Your task to perform on an android device: Search for "macbook air" on target.com, select the first entry, and add it to the cart. Image 0: 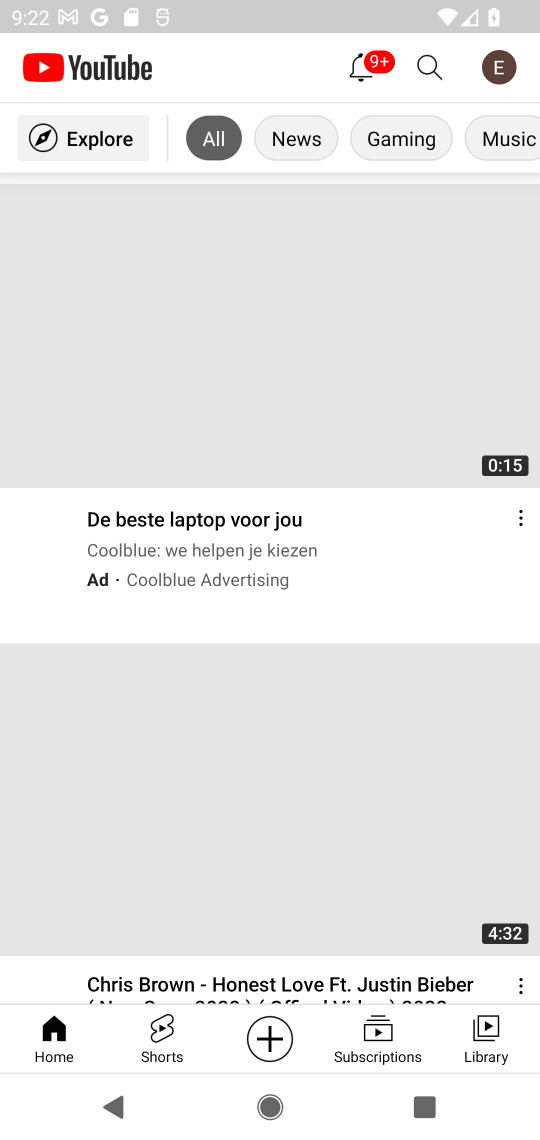
Step 0: press home button
Your task to perform on an android device: Search for "macbook air" on target.com, select the first entry, and add it to the cart. Image 1: 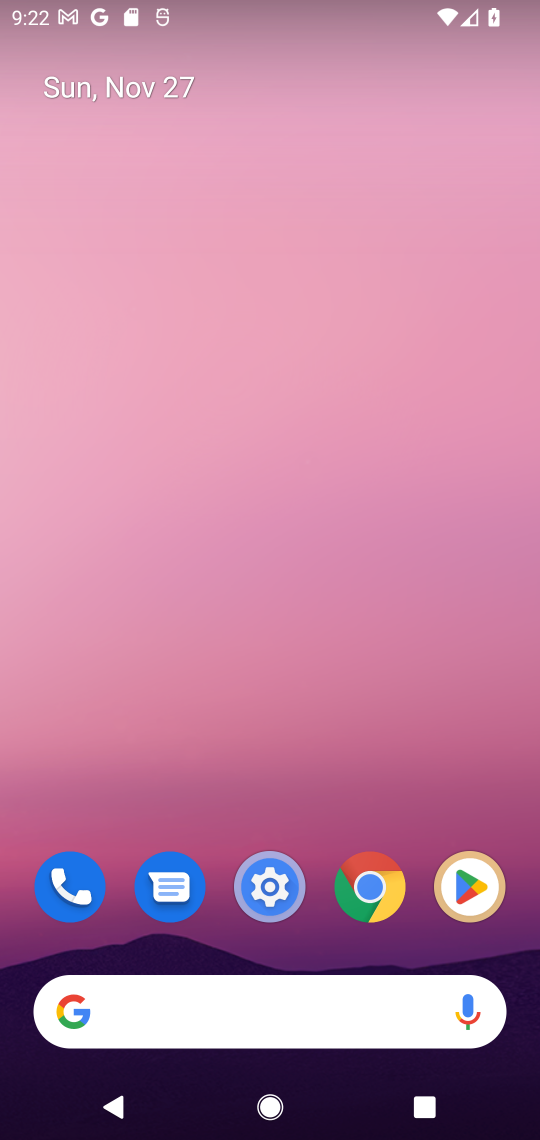
Step 1: click (372, 987)
Your task to perform on an android device: Search for "macbook air" on target.com, select the first entry, and add it to the cart. Image 2: 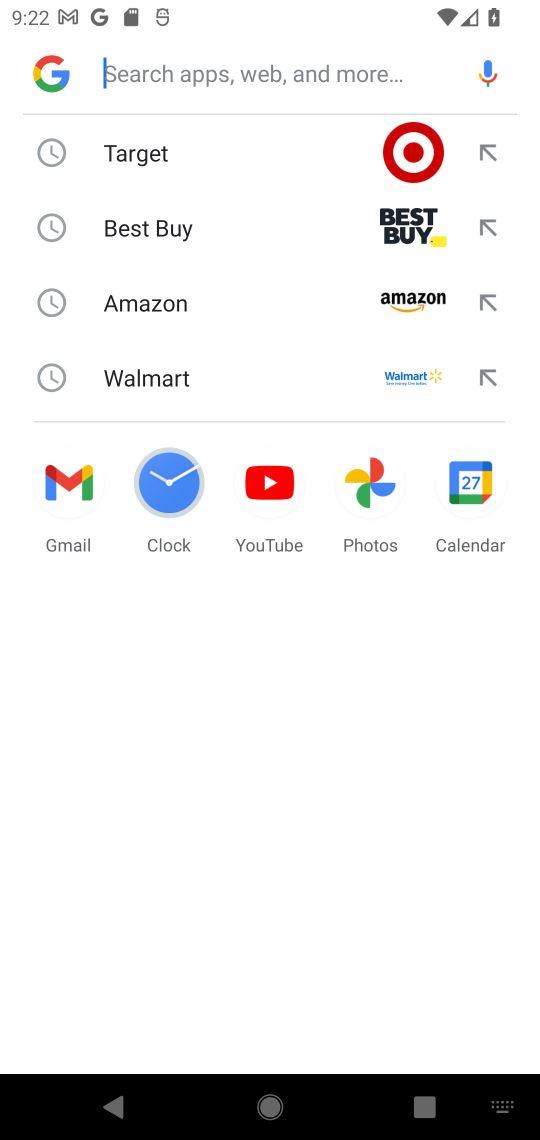
Step 2: click (152, 155)
Your task to perform on an android device: Search for "macbook air" on target.com, select the first entry, and add it to the cart. Image 3: 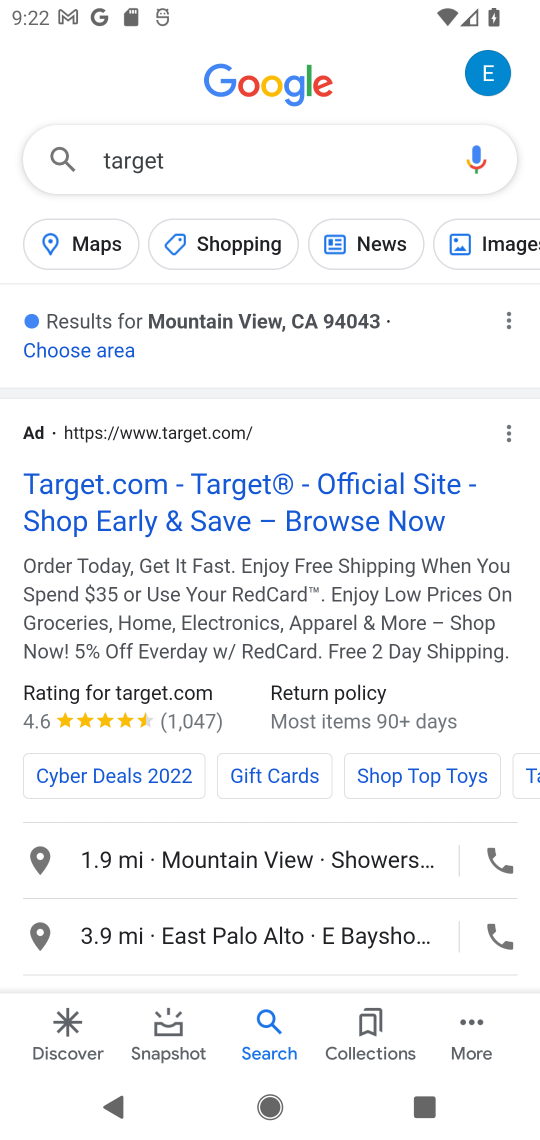
Step 3: click (289, 527)
Your task to perform on an android device: Search for "macbook air" on target.com, select the first entry, and add it to the cart. Image 4: 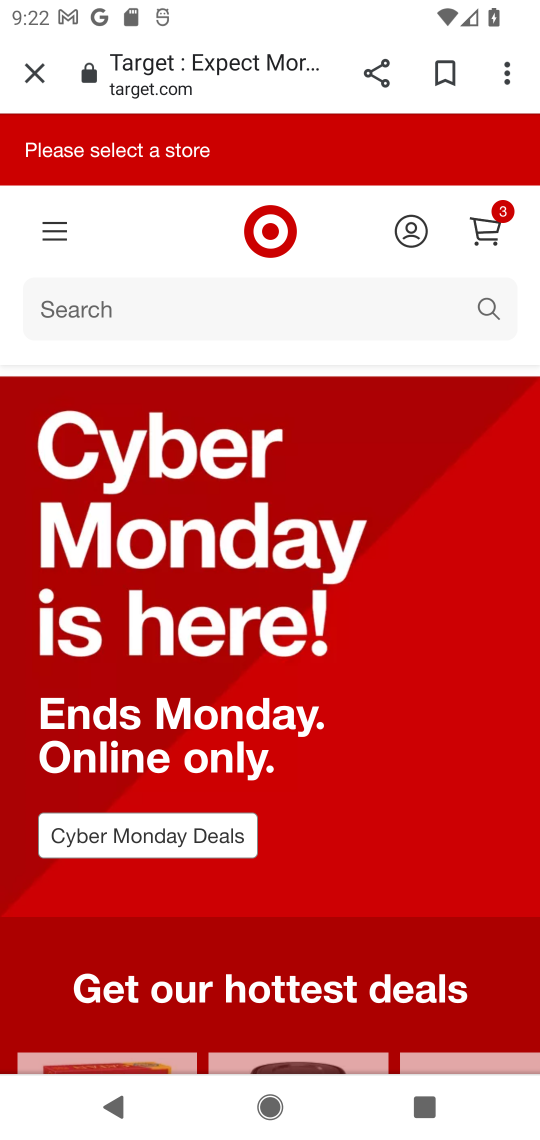
Step 4: click (239, 295)
Your task to perform on an android device: Search for "macbook air" on target.com, select the first entry, and add it to the cart. Image 5: 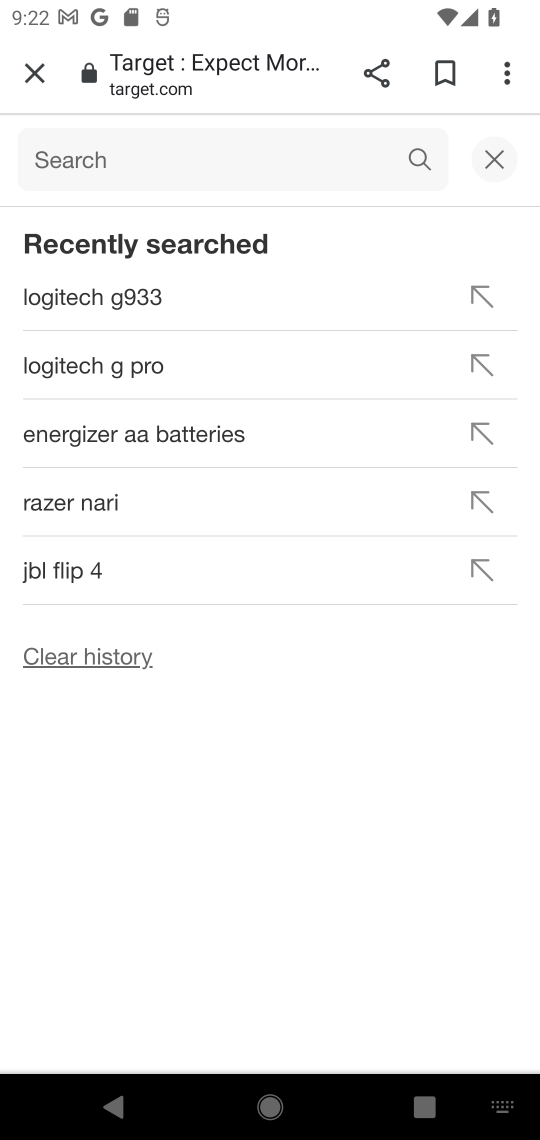
Step 5: type "macbook air"
Your task to perform on an android device: Search for "macbook air" on target.com, select the first entry, and add it to the cart. Image 6: 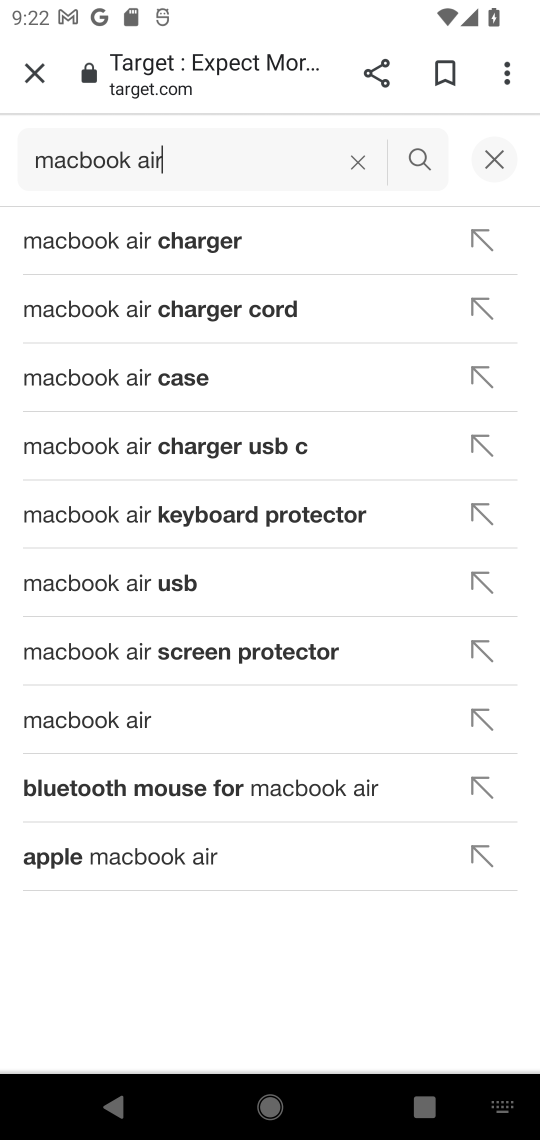
Step 6: click (405, 173)
Your task to perform on an android device: Search for "macbook air" on target.com, select the first entry, and add it to the cart. Image 7: 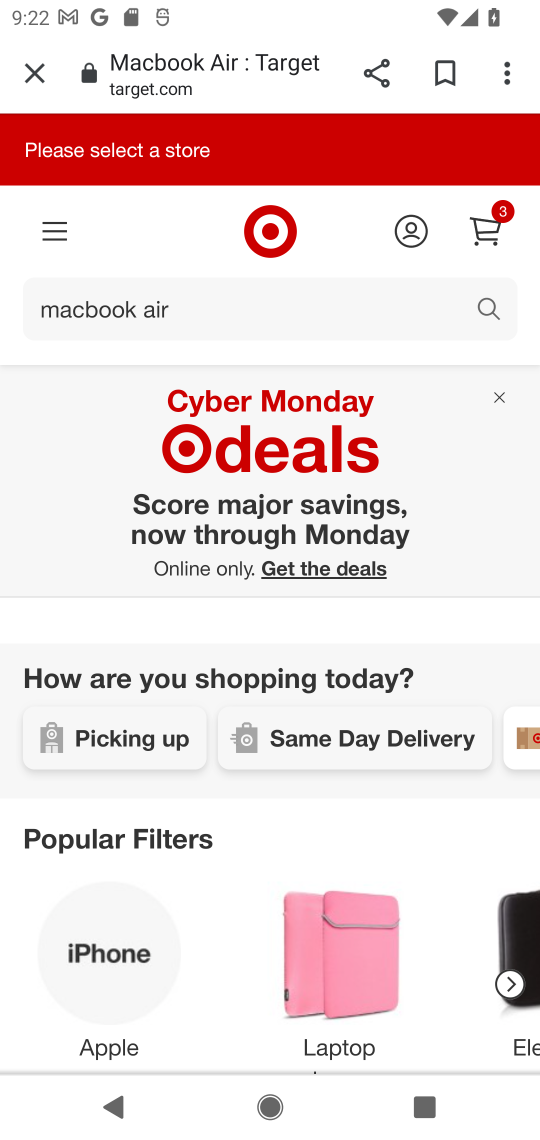
Step 7: click (492, 403)
Your task to perform on an android device: Search for "macbook air" on target.com, select the first entry, and add it to the cart. Image 8: 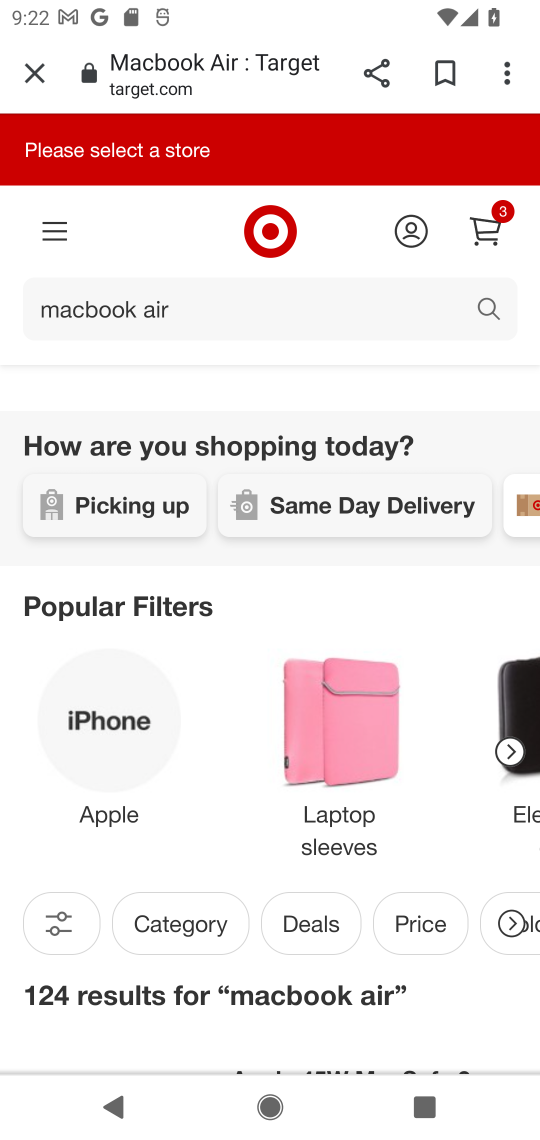
Step 8: drag from (258, 575) to (248, 357)
Your task to perform on an android device: Search for "macbook air" on target.com, select the first entry, and add it to the cart. Image 9: 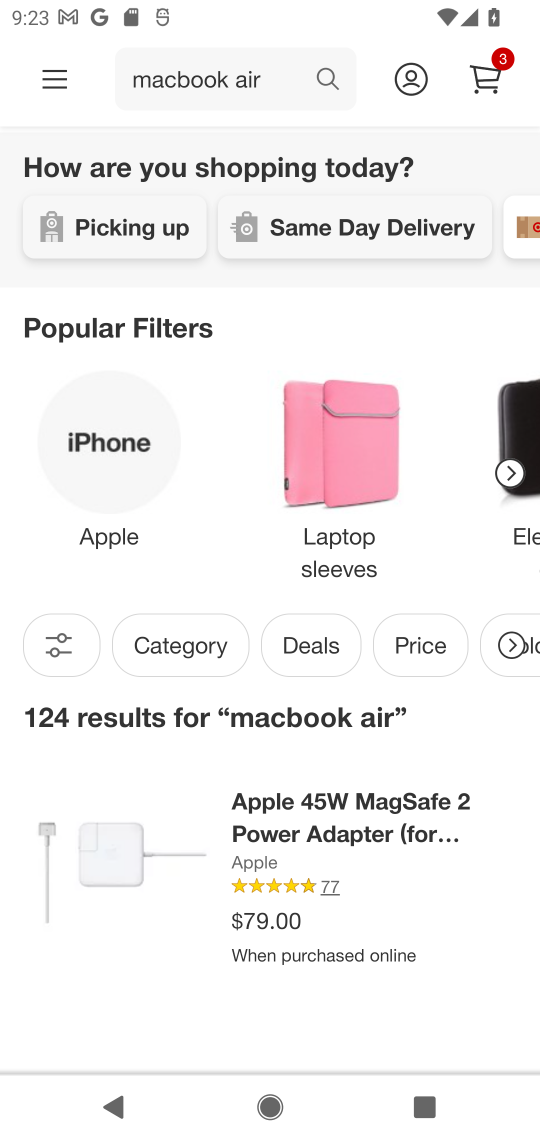
Step 9: click (430, 789)
Your task to perform on an android device: Search for "macbook air" on target.com, select the first entry, and add it to the cart. Image 10: 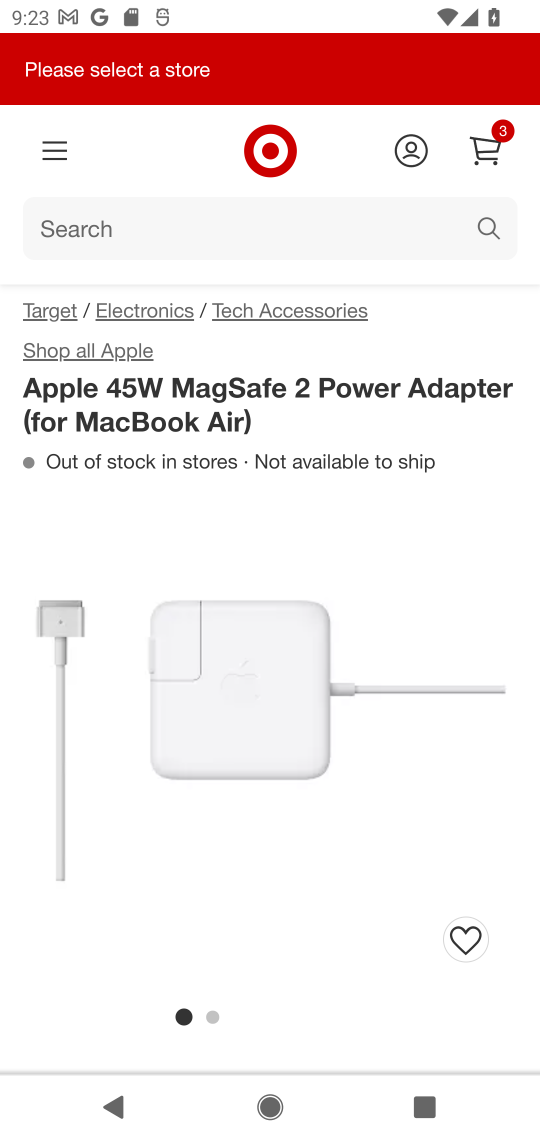
Step 10: drag from (430, 789) to (369, 535)
Your task to perform on an android device: Search for "macbook air" on target.com, select the first entry, and add it to the cart. Image 11: 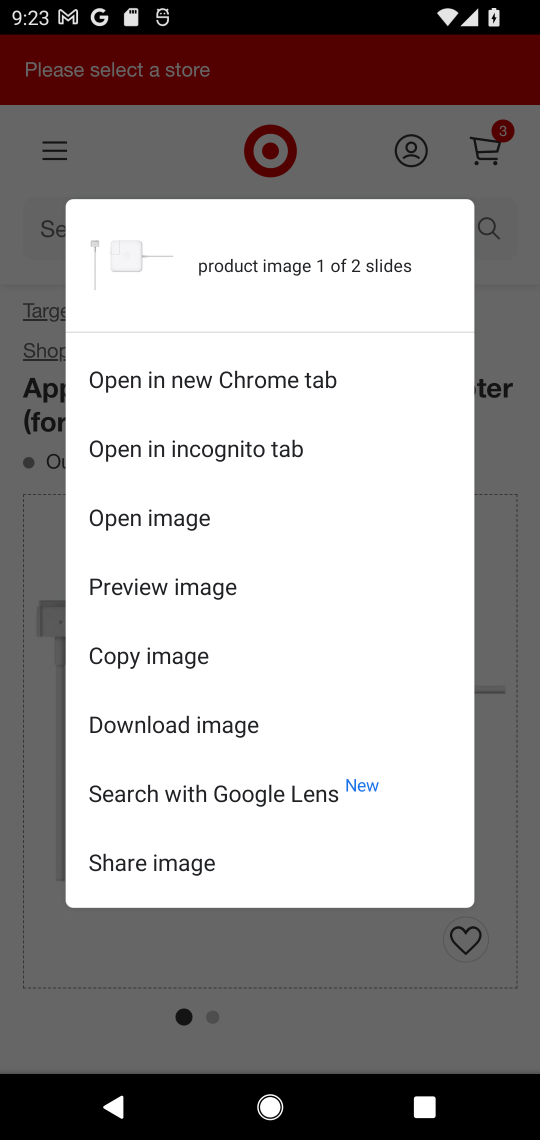
Step 11: click (499, 601)
Your task to perform on an android device: Search for "macbook air" on target.com, select the first entry, and add it to the cart. Image 12: 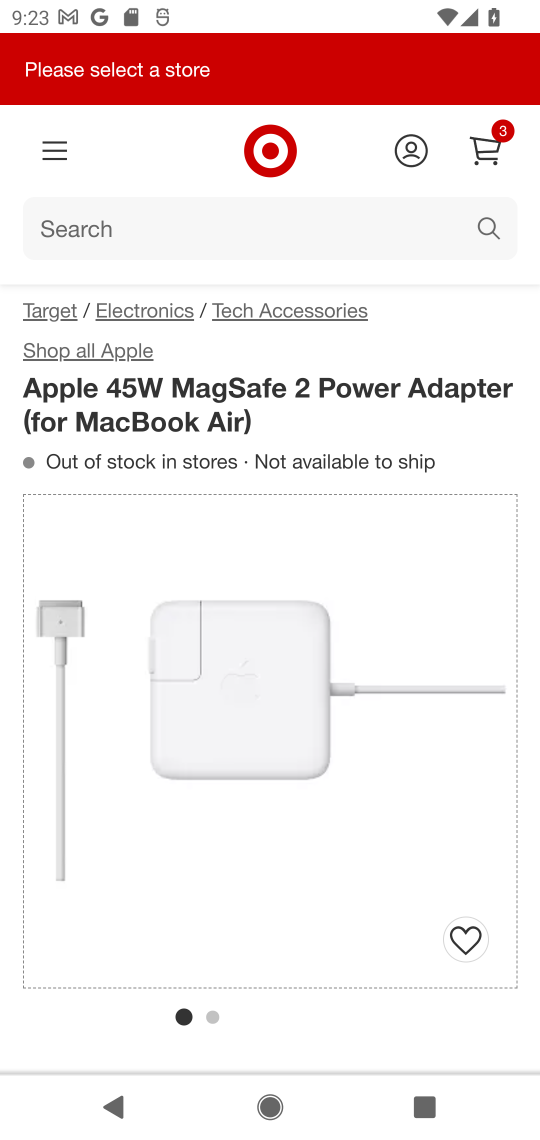
Step 12: drag from (210, 912) to (238, 558)
Your task to perform on an android device: Search for "macbook air" on target.com, select the first entry, and add it to the cart. Image 13: 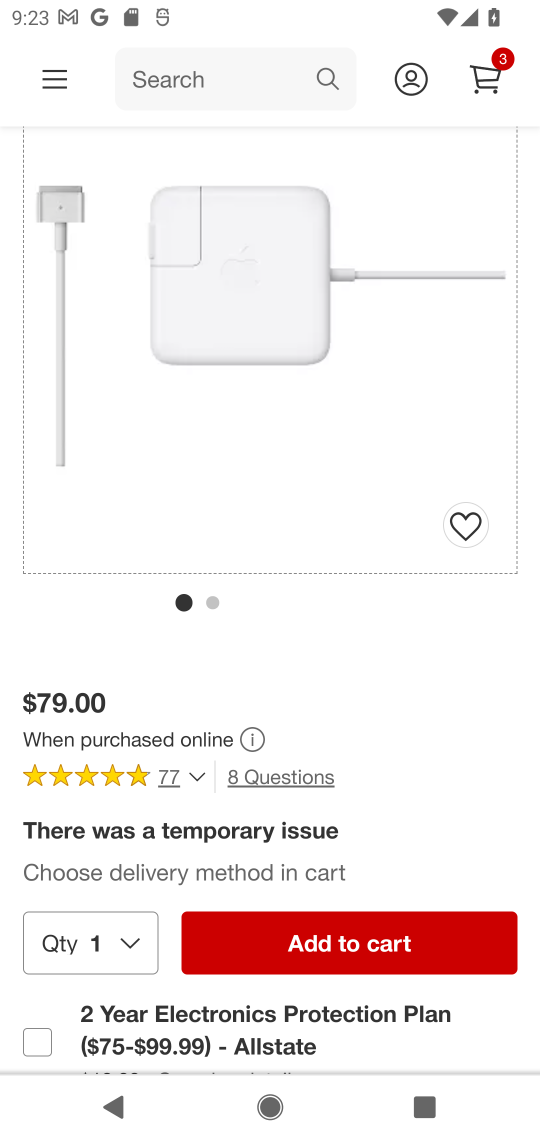
Step 13: click (293, 964)
Your task to perform on an android device: Search for "macbook air" on target.com, select the first entry, and add it to the cart. Image 14: 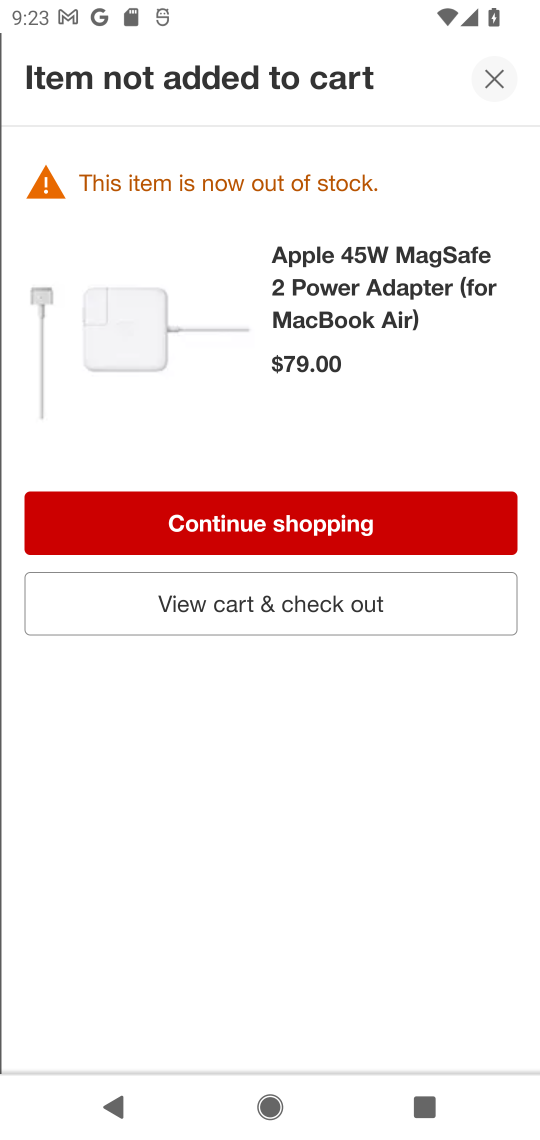
Step 14: click (390, 610)
Your task to perform on an android device: Search for "macbook air" on target.com, select the first entry, and add it to the cart. Image 15: 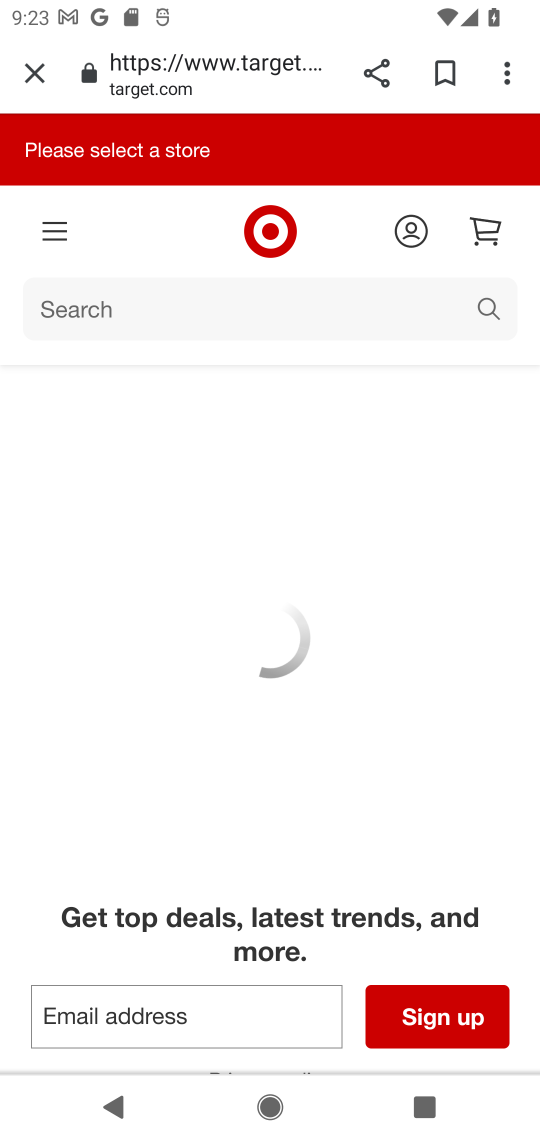
Step 15: task complete